Your task to perform on an android device: open app "Upside-Cash back on gas & food" (install if not already installed) Image 0: 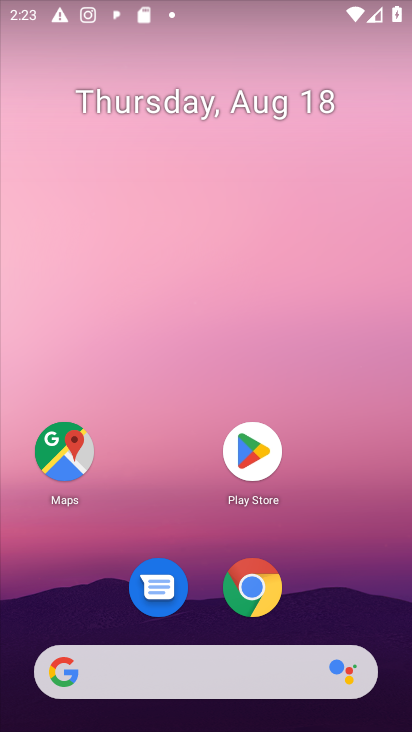
Step 0: click (244, 450)
Your task to perform on an android device: open app "Upside-Cash back on gas & food" (install if not already installed) Image 1: 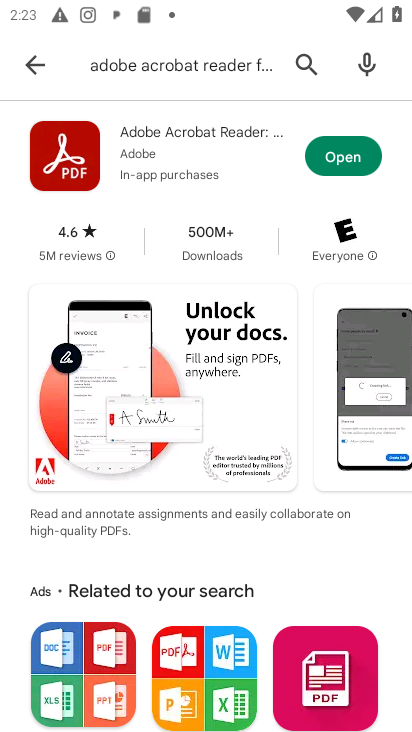
Step 1: click (304, 59)
Your task to perform on an android device: open app "Upside-Cash back on gas & food" (install if not already installed) Image 2: 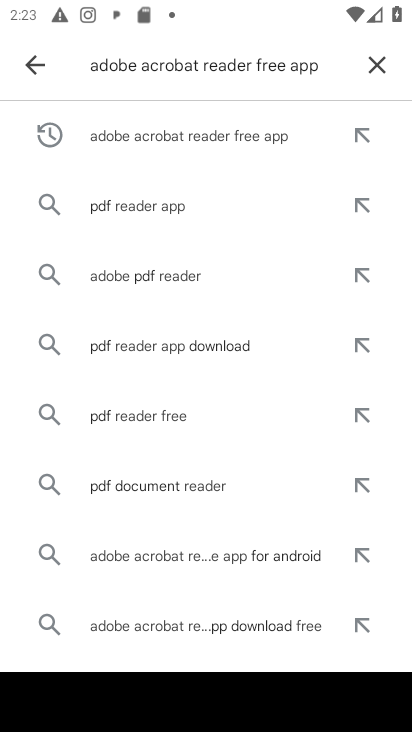
Step 2: click (371, 68)
Your task to perform on an android device: open app "Upside-Cash back on gas & food" (install if not already installed) Image 3: 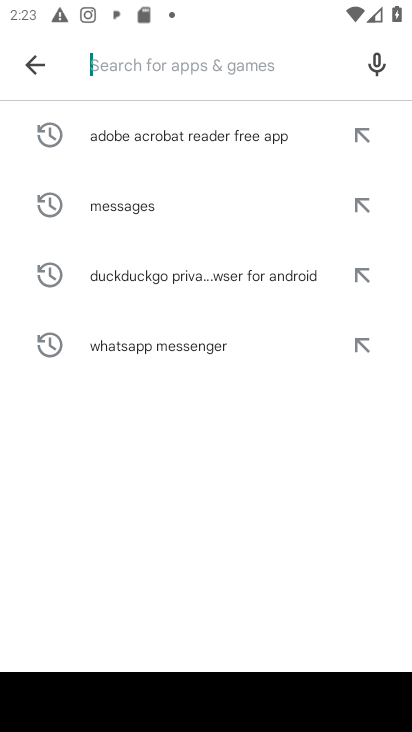
Step 3: type "Upside-Cash back on gas & food"
Your task to perform on an android device: open app "Upside-Cash back on gas & food" (install if not already installed) Image 4: 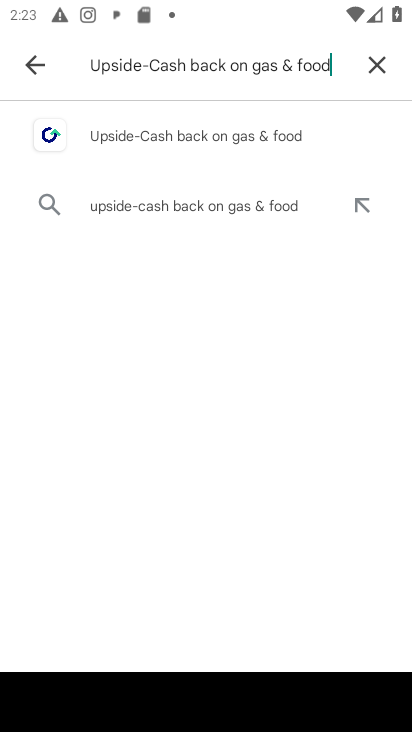
Step 4: click (164, 129)
Your task to perform on an android device: open app "Upside-Cash back on gas & food" (install if not already installed) Image 5: 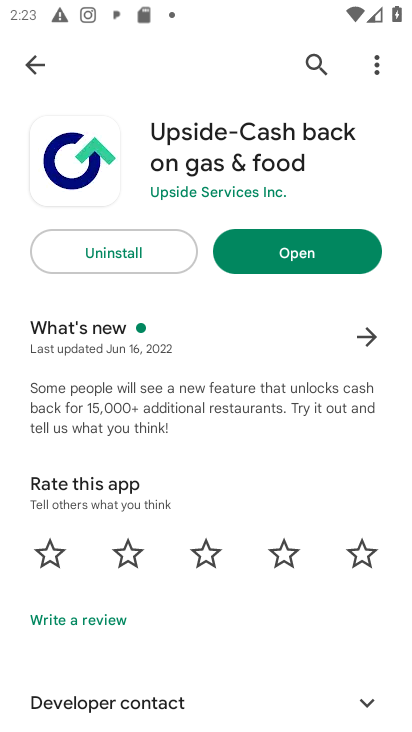
Step 5: click (308, 246)
Your task to perform on an android device: open app "Upside-Cash back on gas & food" (install if not already installed) Image 6: 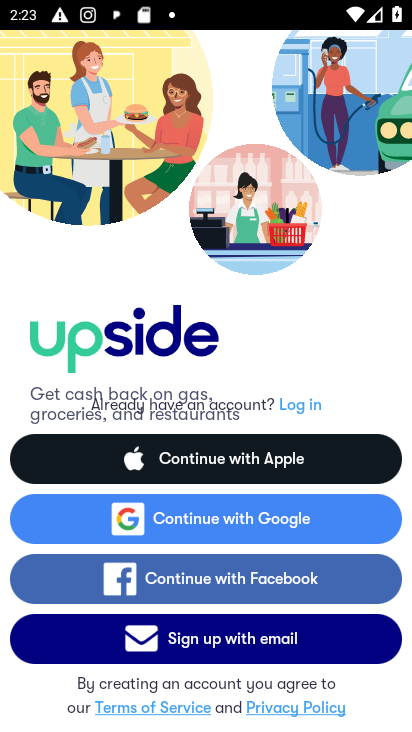
Step 6: task complete